Your task to perform on an android device: Show me the alarms in the clock app Image 0: 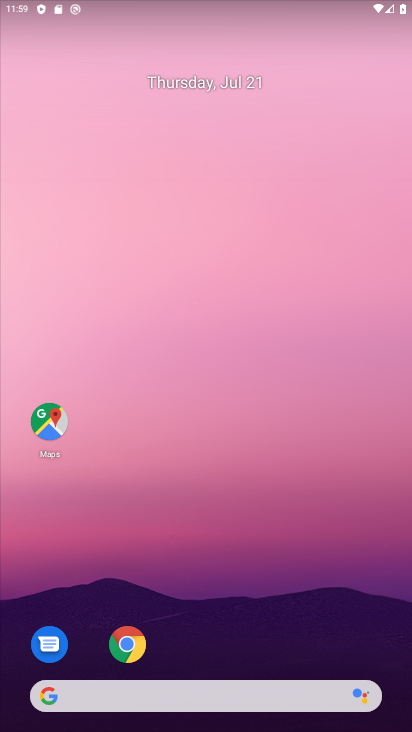
Step 0: drag from (262, 558) to (288, 118)
Your task to perform on an android device: Show me the alarms in the clock app Image 1: 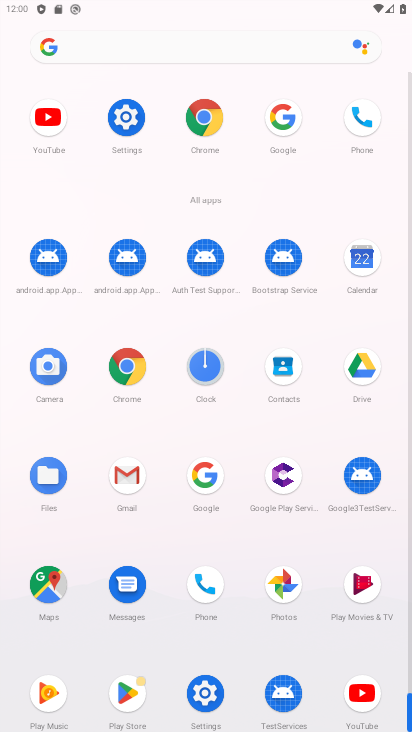
Step 1: click (206, 388)
Your task to perform on an android device: Show me the alarms in the clock app Image 2: 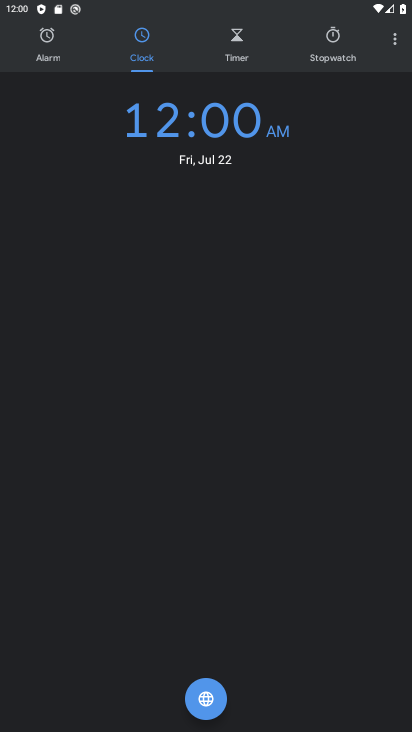
Step 2: click (389, 46)
Your task to perform on an android device: Show me the alarms in the clock app Image 3: 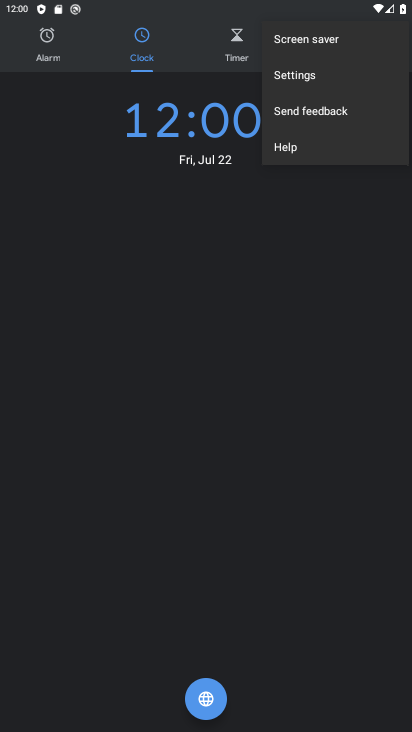
Step 3: click (286, 74)
Your task to perform on an android device: Show me the alarms in the clock app Image 4: 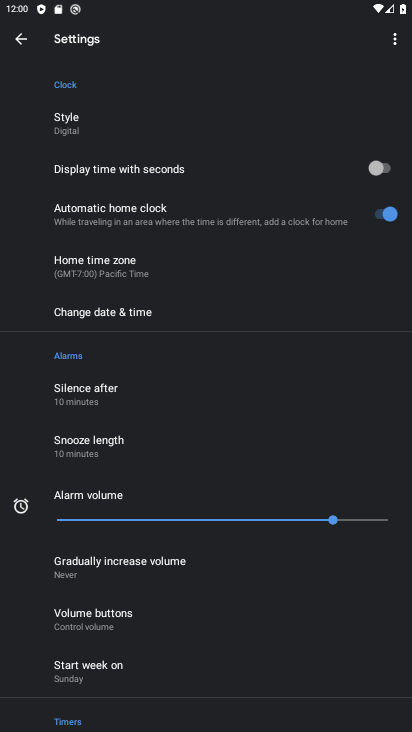
Step 4: click (16, 42)
Your task to perform on an android device: Show me the alarms in the clock app Image 5: 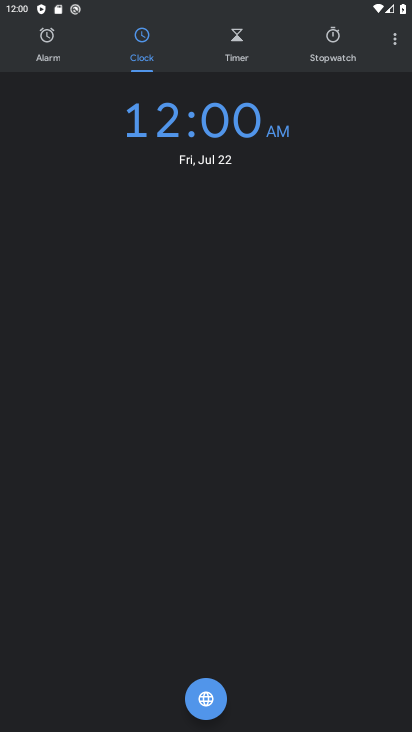
Step 5: click (60, 60)
Your task to perform on an android device: Show me the alarms in the clock app Image 6: 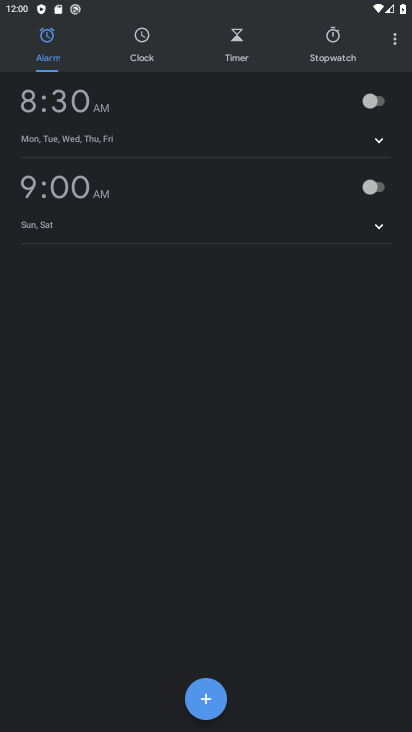
Step 6: task complete